Your task to perform on an android device: Set the phone to "Do not disturb". Image 0: 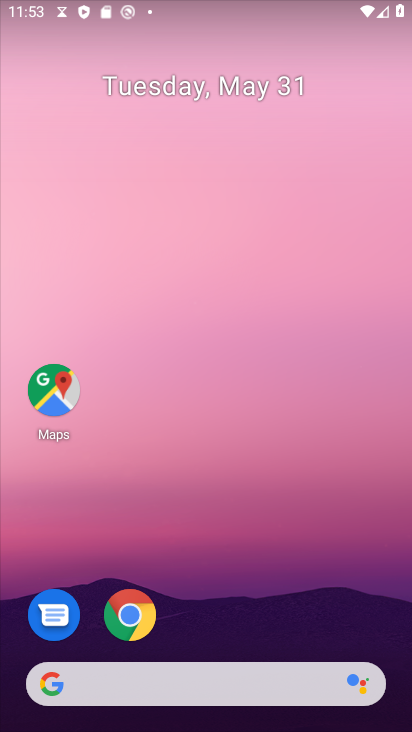
Step 0: drag from (320, 655) to (370, 101)
Your task to perform on an android device: Set the phone to "Do not disturb". Image 1: 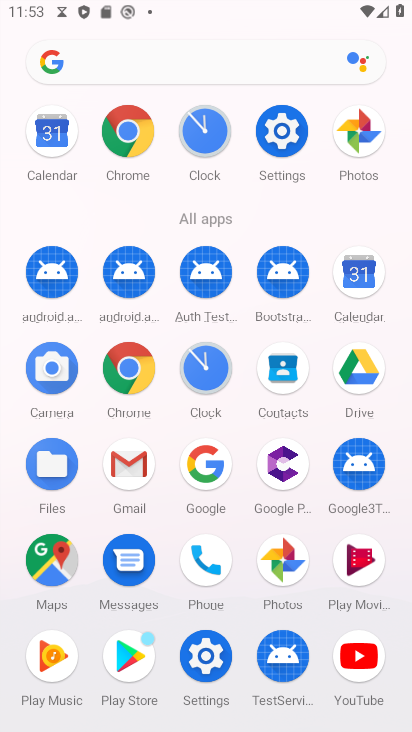
Step 1: click (286, 117)
Your task to perform on an android device: Set the phone to "Do not disturb". Image 2: 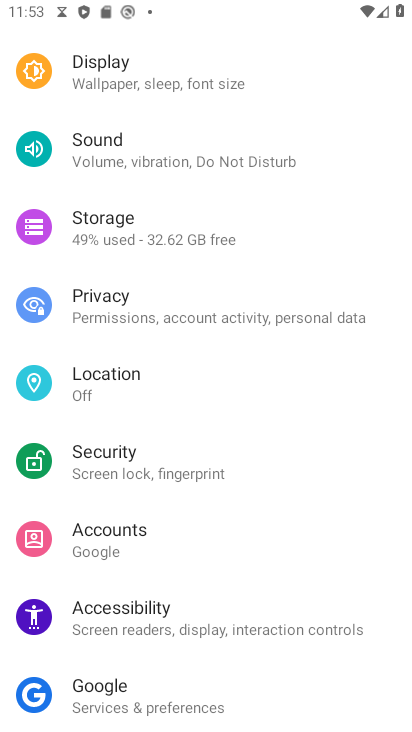
Step 2: click (138, 137)
Your task to perform on an android device: Set the phone to "Do not disturb". Image 3: 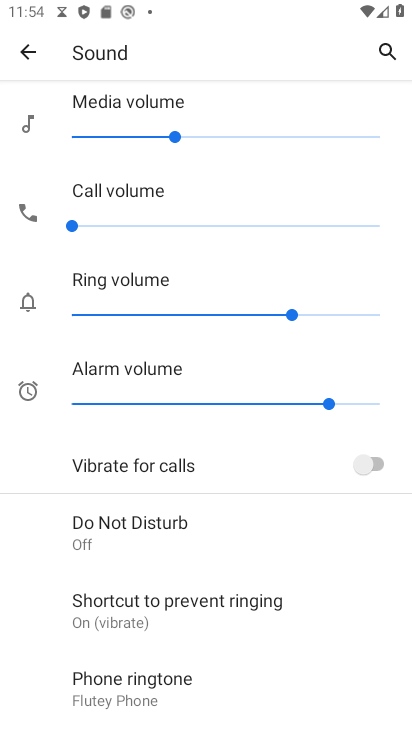
Step 3: click (167, 549)
Your task to perform on an android device: Set the phone to "Do not disturb". Image 4: 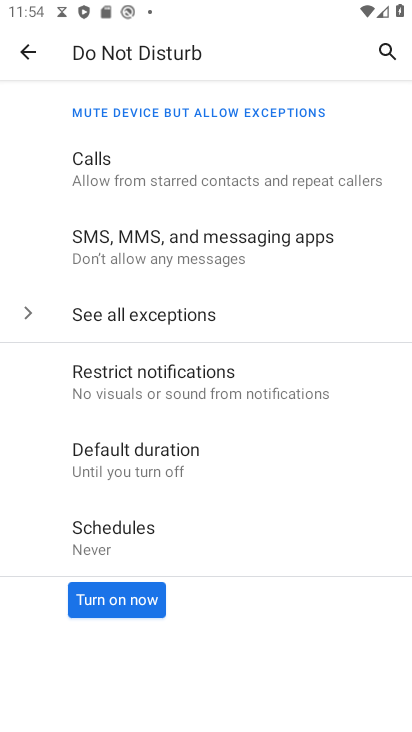
Step 4: click (131, 599)
Your task to perform on an android device: Set the phone to "Do not disturb". Image 5: 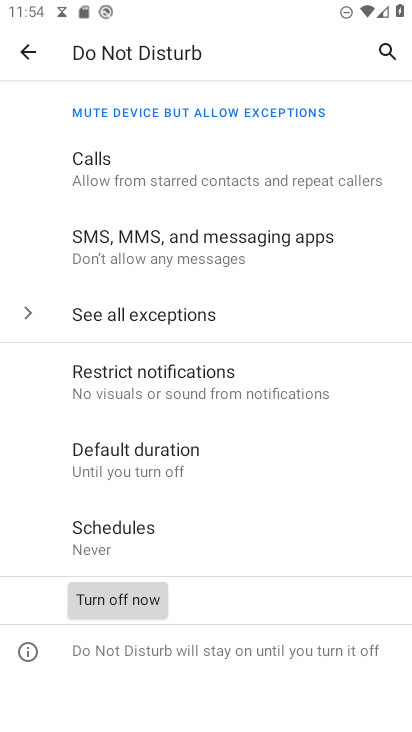
Step 5: task complete